Your task to perform on an android device: What is the news today? Image 0: 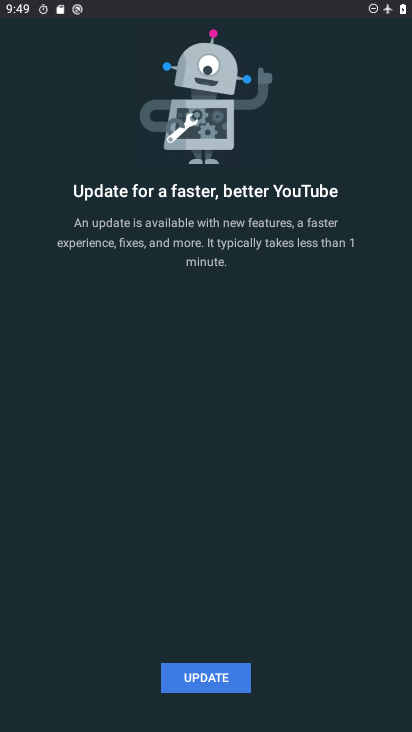
Step 0: press home button
Your task to perform on an android device: What is the news today? Image 1: 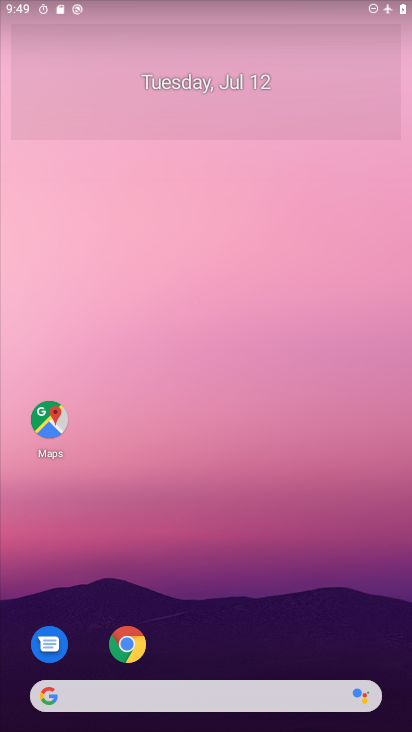
Step 1: drag from (209, 626) to (217, 81)
Your task to perform on an android device: What is the news today? Image 2: 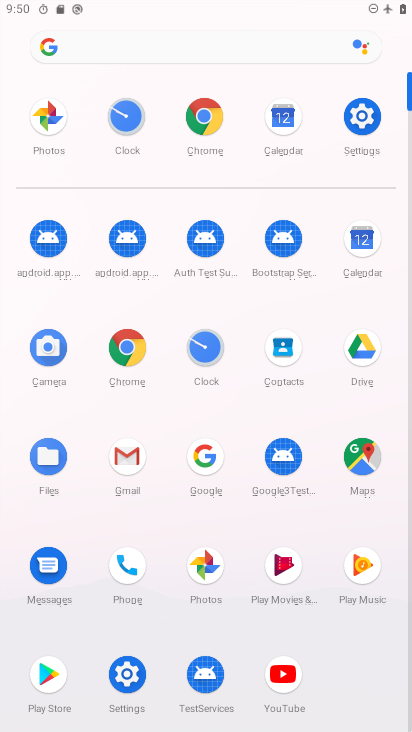
Step 2: click (211, 453)
Your task to perform on an android device: What is the news today? Image 3: 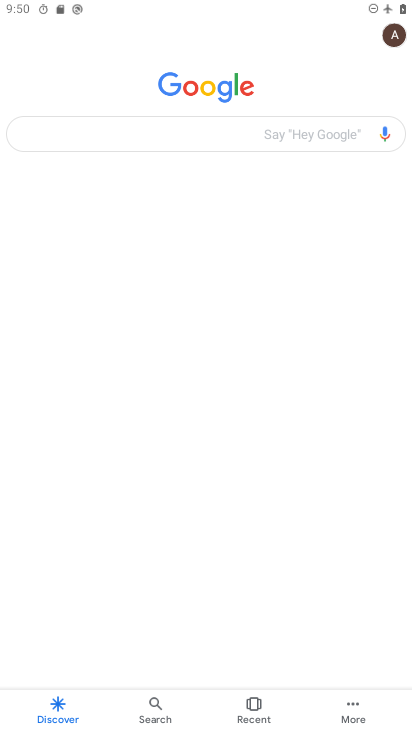
Step 3: click (123, 124)
Your task to perform on an android device: What is the news today? Image 4: 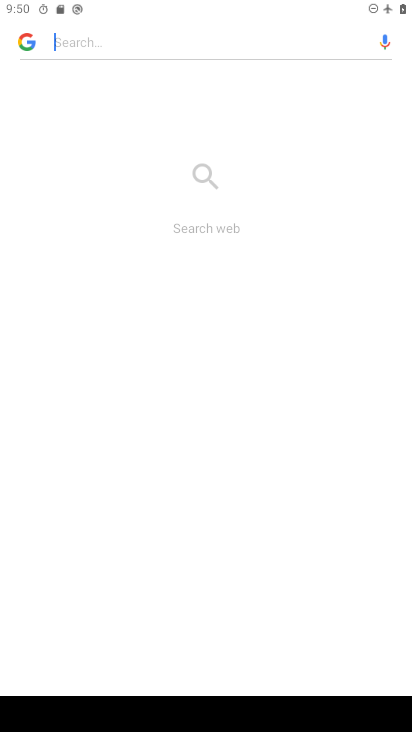
Step 4: click (124, 47)
Your task to perform on an android device: What is the news today? Image 5: 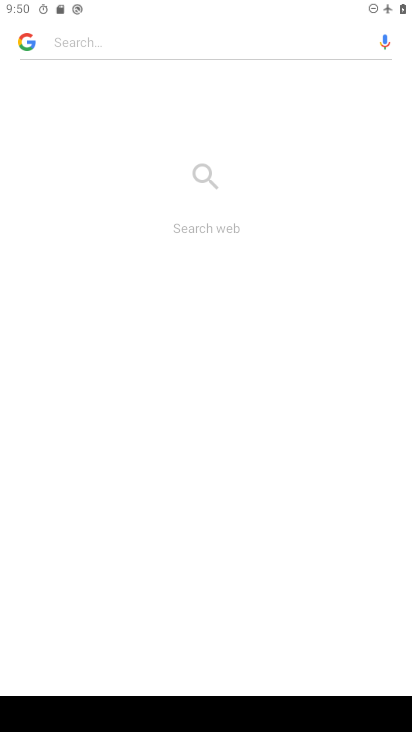
Step 5: type "news today"
Your task to perform on an android device: What is the news today? Image 6: 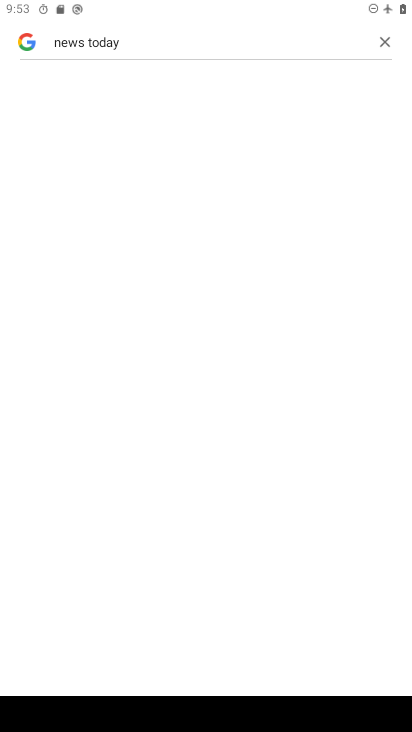
Step 6: task complete